Your task to perform on an android device: Go to eBay Image 0: 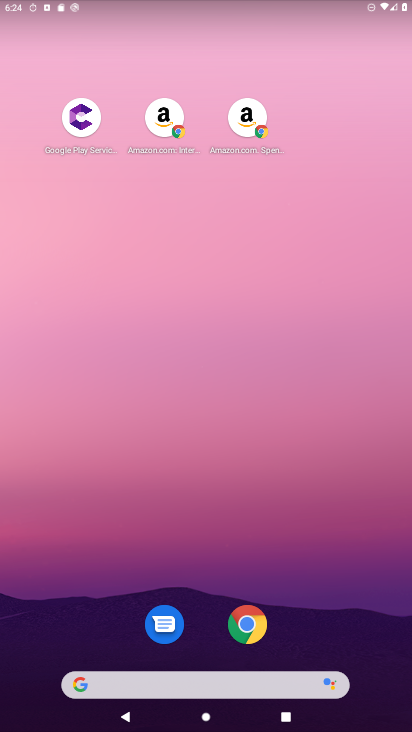
Step 0: drag from (269, 669) to (378, 33)
Your task to perform on an android device: Go to eBay Image 1: 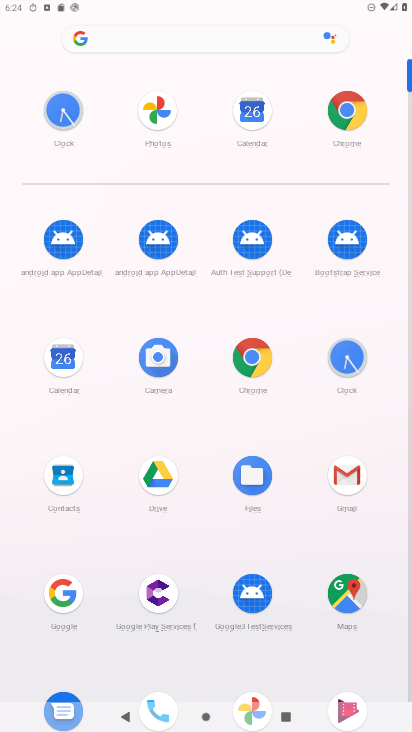
Step 1: click (239, 350)
Your task to perform on an android device: Go to eBay Image 2: 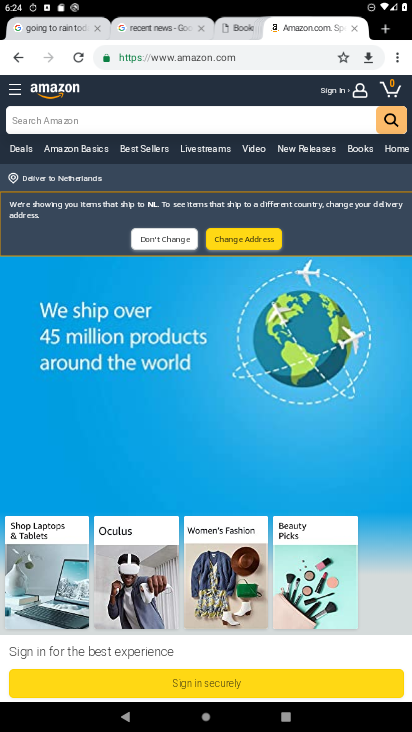
Step 2: click (207, 53)
Your task to perform on an android device: Go to eBay Image 3: 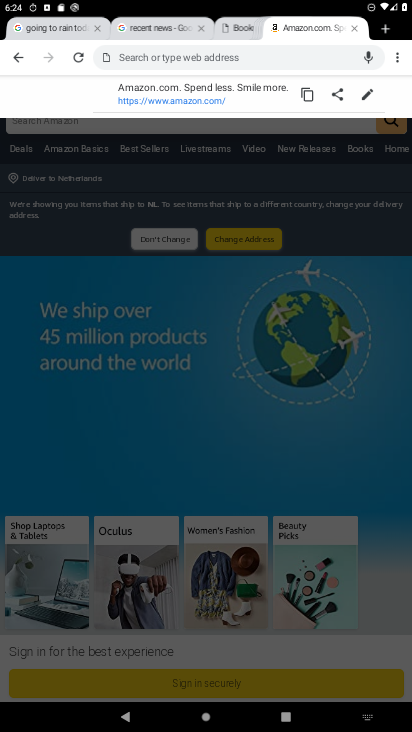
Step 3: type "ebay"
Your task to perform on an android device: Go to eBay Image 4: 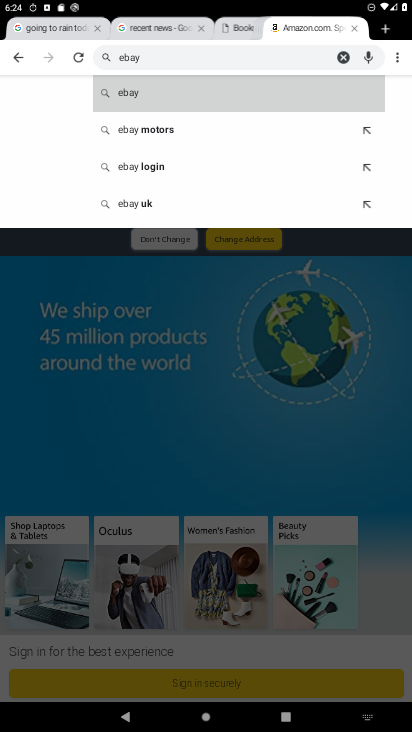
Step 4: click (347, 98)
Your task to perform on an android device: Go to eBay Image 5: 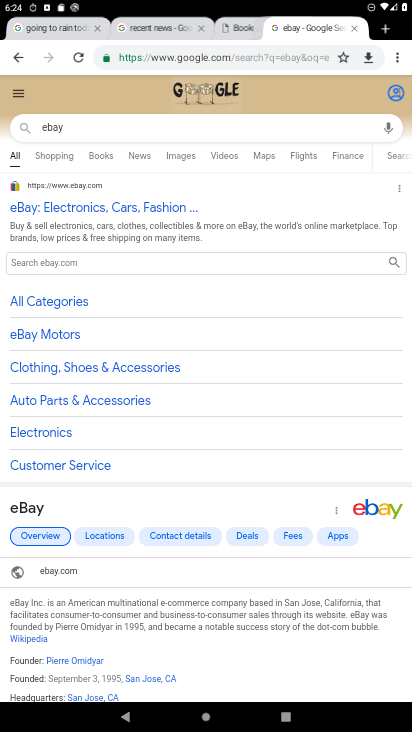
Step 5: task complete